Your task to perform on an android device: install app "Instagram" Image 0: 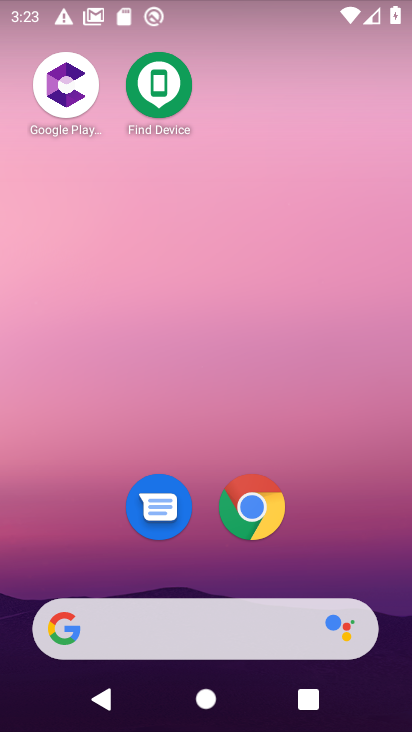
Step 0: drag from (212, 546) to (241, 40)
Your task to perform on an android device: install app "Instagram" Image 1: 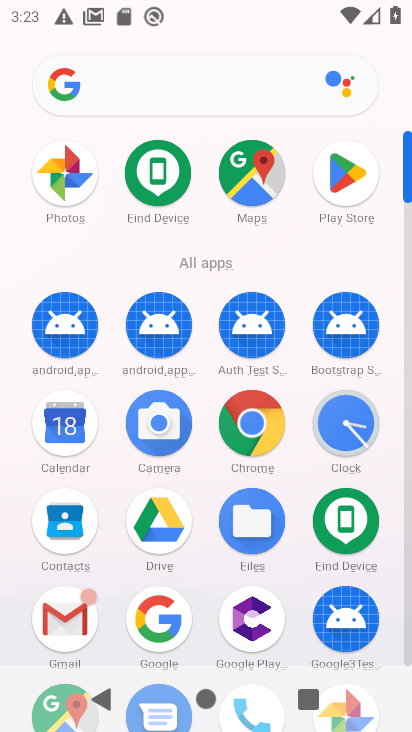
Step 1: click (348, 182)
Your task to perform on an android device: install app "Instagram" Image 2: 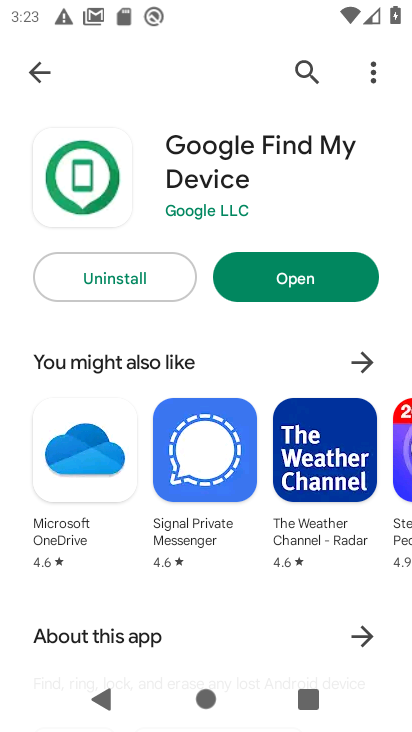
Step 2: click (320, 61)
Your task to perform on an android device: install app "Instagram" Image 3: 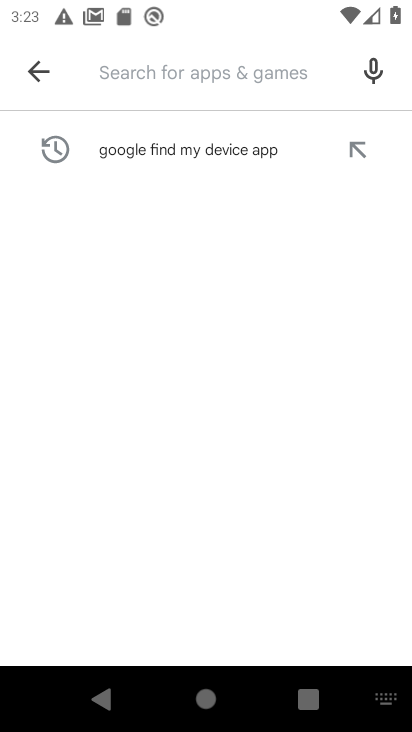
Step 3: click (181, 80)
Your task to perform on an android device: install app "Instagram" Image 4: 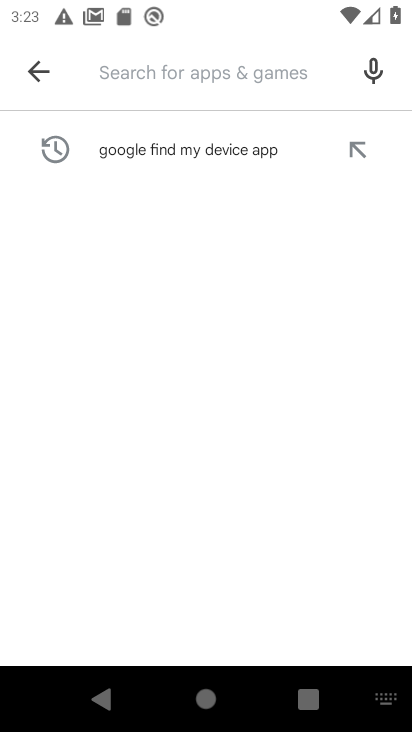
Step 4: type "instagram"
Your task to perform on an android device: install app "Instagram" Image 5: 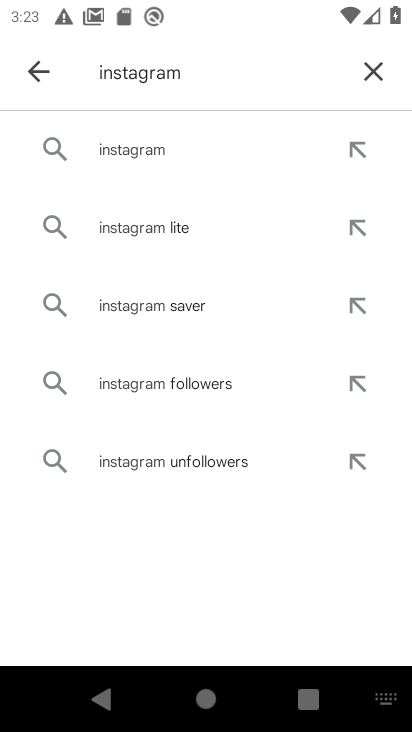
Step 5: click (157, 140)
Your task to perform on an android device: install app "Instagram" Image 6: 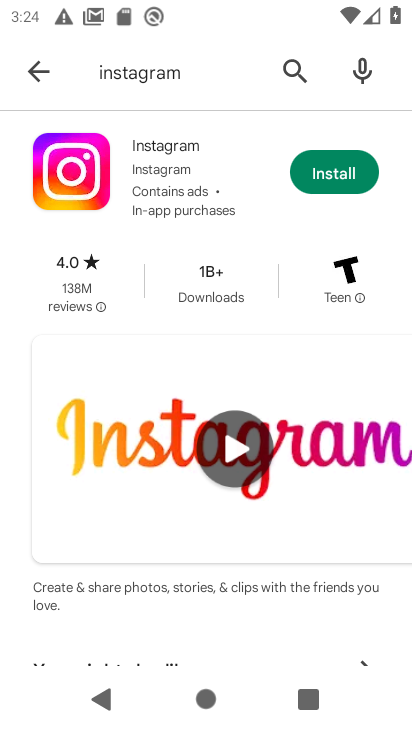
Step 6: click (360, 166)
Your task to perform on an android device: install app "Instagram" Image 7: 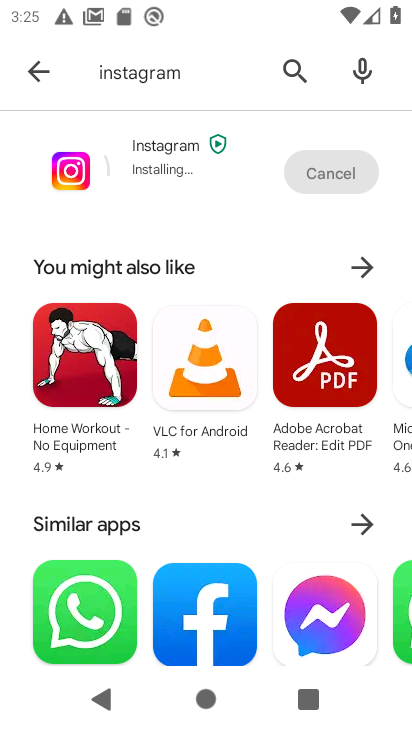
Step 7: press back button
Your task to perform on an android device: install app "Instagram" Image 8: 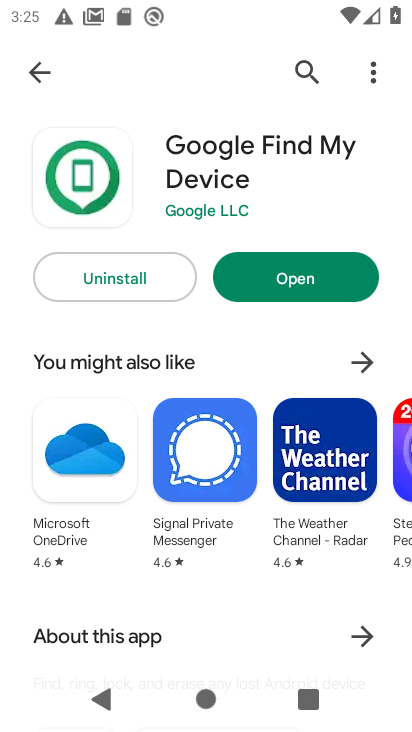
Step 8: click (305, 60)
Your task to perform on an android device: install app "Instagram" Image 9: 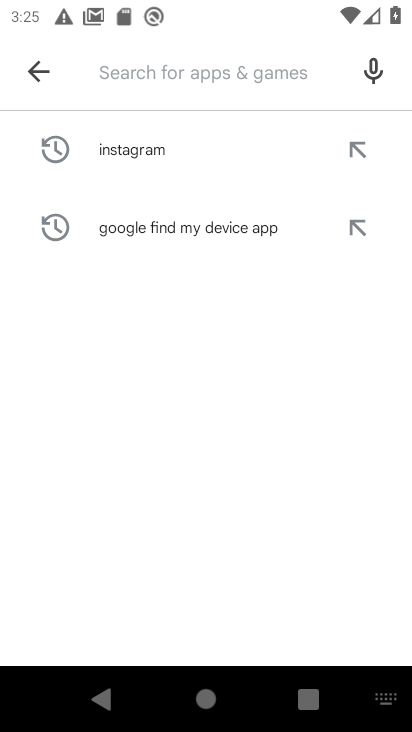
Step 9: click (110, 147)
Your task to perform on an android device: install app "Instagram" Image 10: 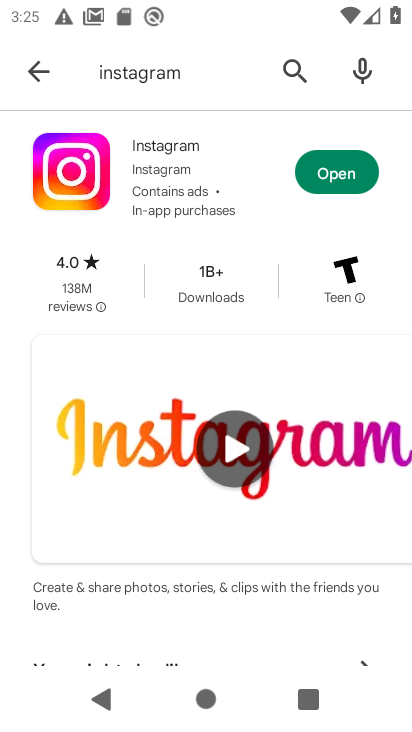
Step 10: task complete